Your task to perform on an android device: Open Youtube and go to the subscriptions tab Image 0: 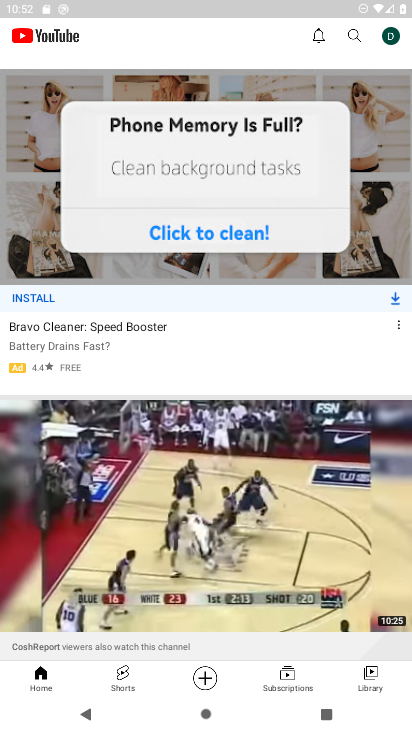
Step 0: press home button
Your task to perform on an android device: Open Youtube and go to the subscriptions tab Image 1: 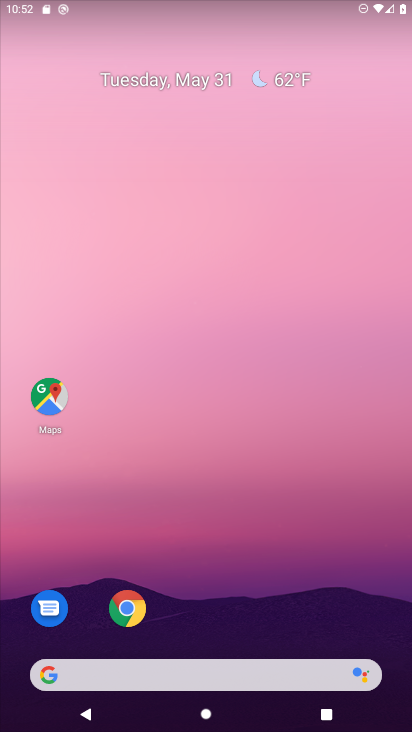
Step 1: drag from (268, 495) to (233, 67)
Your task to perform on an android device: Open Youtube and go to the subscriptions tab Image 2: 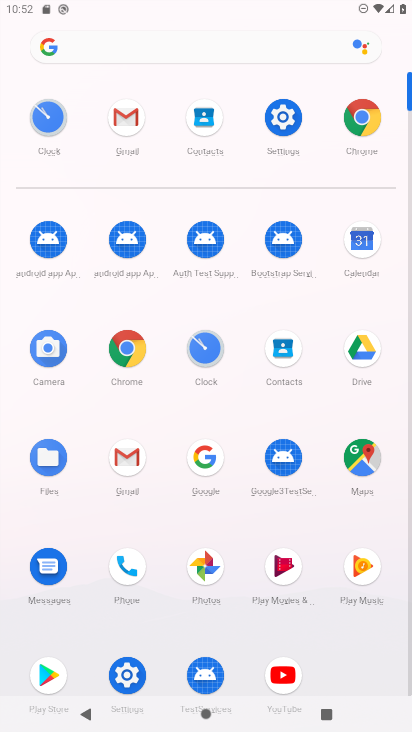
Step 2: click (295, 684)
Your task to perform on an android device: Open Youtube and go to the subscriptions tab Image 3: 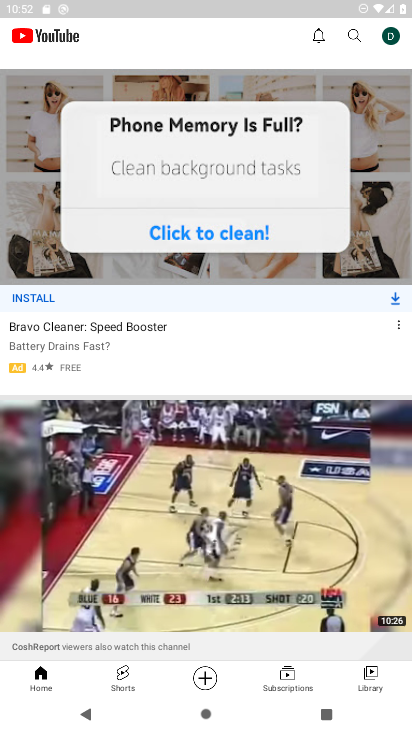
Step 3: click (293, 682)
Your task to perform on an android device: Open Youtube and go to the subscriptions tab Image 4: 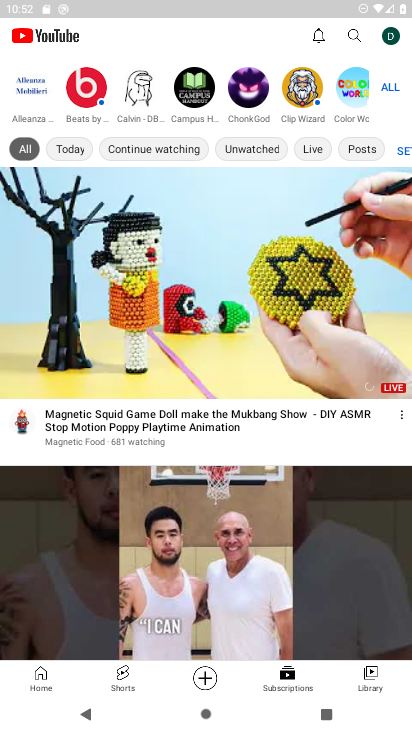
Step 4: task complete